Your task to perform on an android device: toggle notifications settings in the gmail app Image 0: 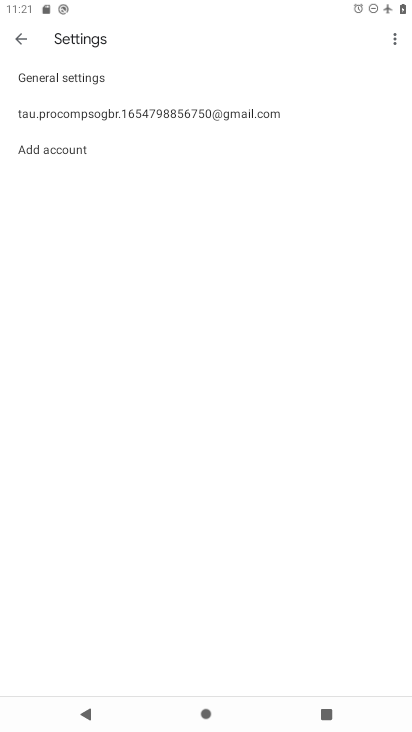
Step 0: press home button
Your task to perform on an android device: toggle notifications settings in the gmail app Image 1: 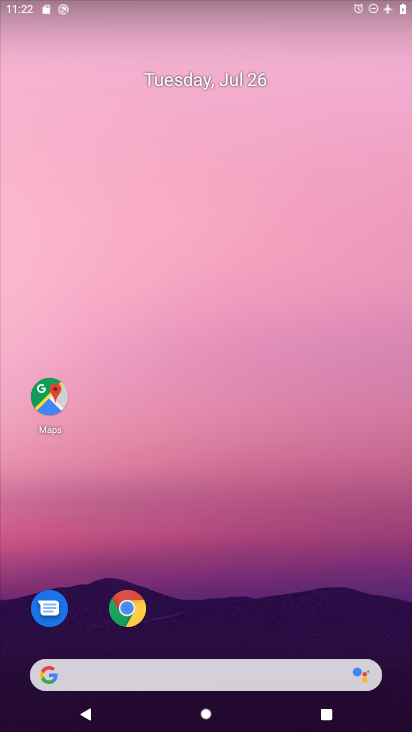
Step 1: drag from (289, 611) to (269, 103)
Your task to perform on an android device: toggle notifications settings in the gmail app Image 2: 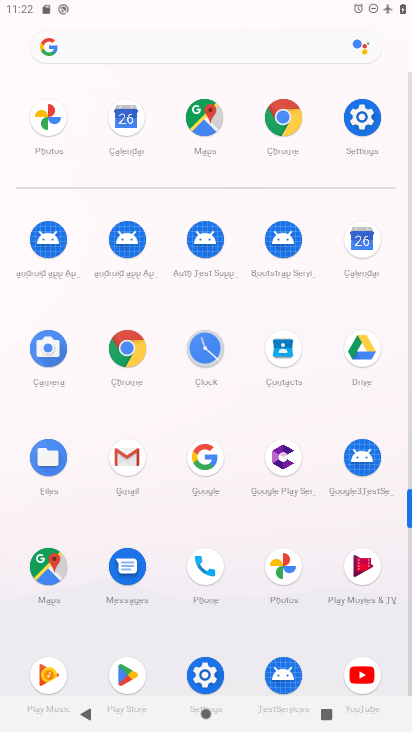
Step 2: click (130, 452)
Your task to perform on an android device: toggle notifications settings in the gmail app Image 3: 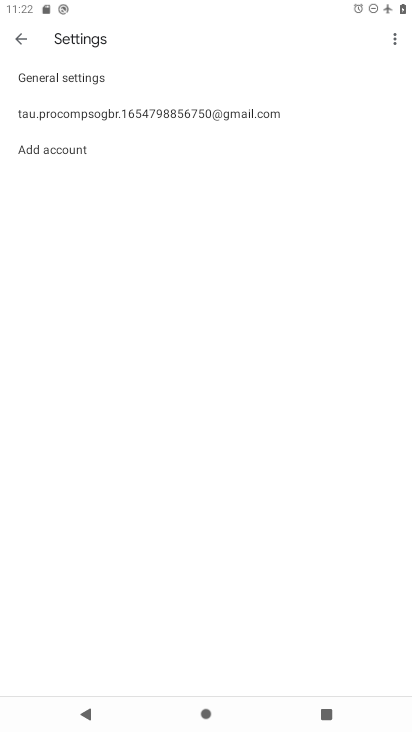
Step 3: click (106, 111)
Your task to perform on an android device: toggle notifications settings in the gmail app Image 4: 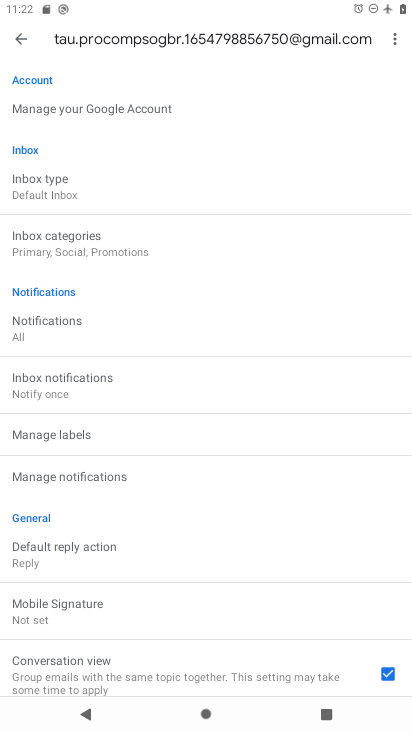
Step 4: click (109, 472)
Your task to perform on an android device: toggle notifications settings in the gmail app Image 5: 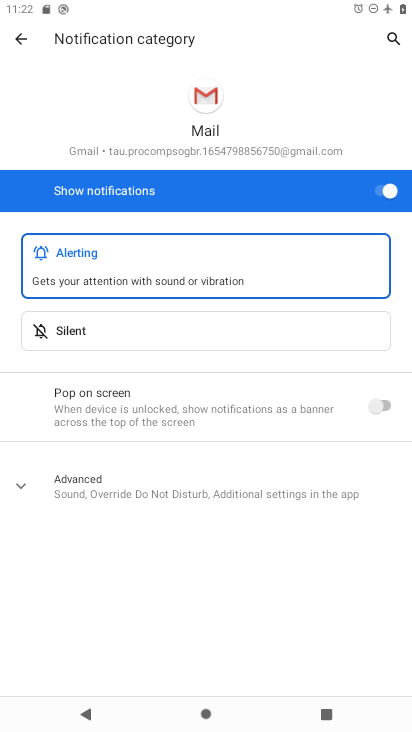
Step 5: click (385, 179)
Your task to perform on an android device: toggle notifications settings in the gmail app Image 6: 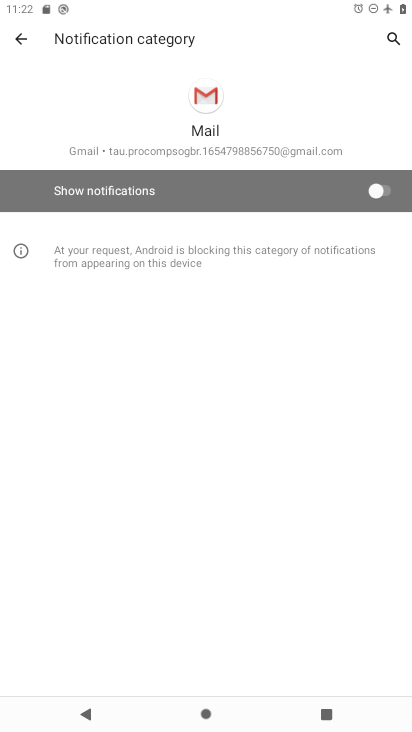
Step 6: task complete